Your task to perform on an android device: Add "usb-a" to the cart on walmart, then select checkout. Image 0: 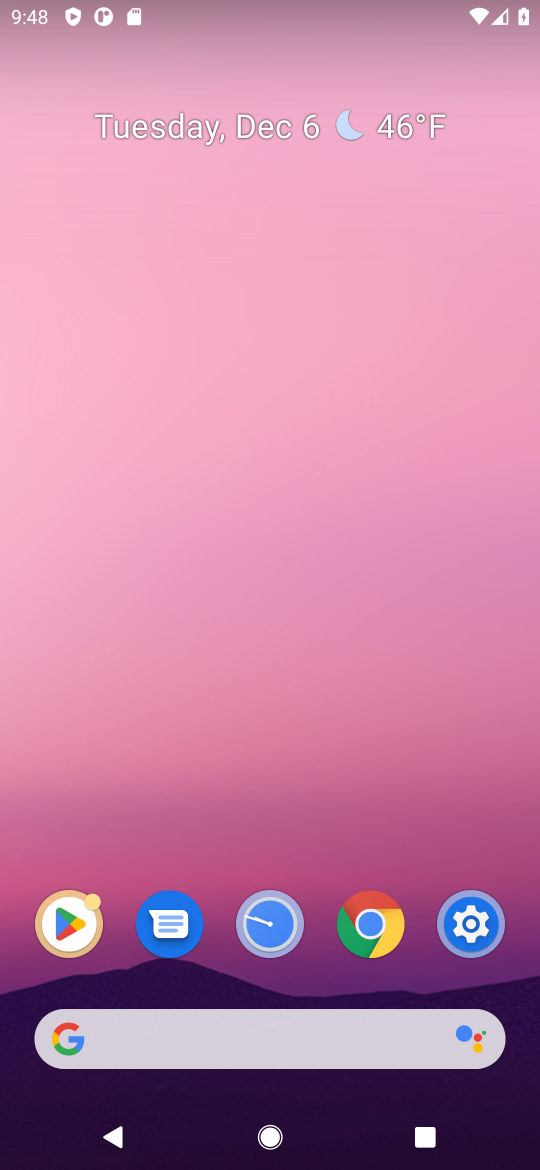
Step 0: click (199, 1028)
Your task to perform on an android device: Add "usb-a" to the cart on walmart, then select checkout. Image 1: 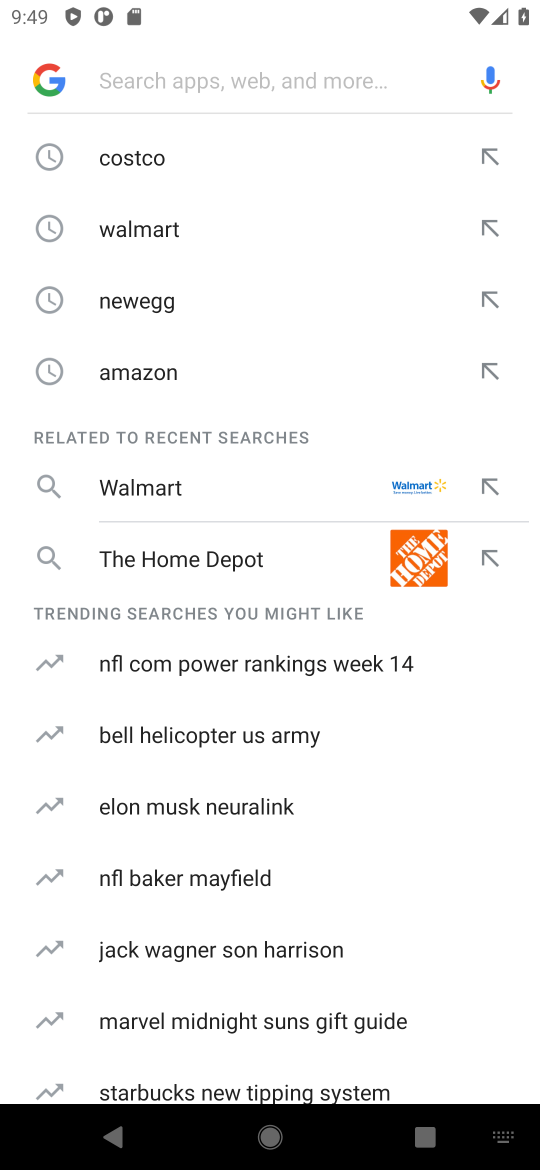
Step 1: click (237, 229)
Your task to perform on an android device: Add "usb-a" to the cart on walmart, then select checkout. Image 2: 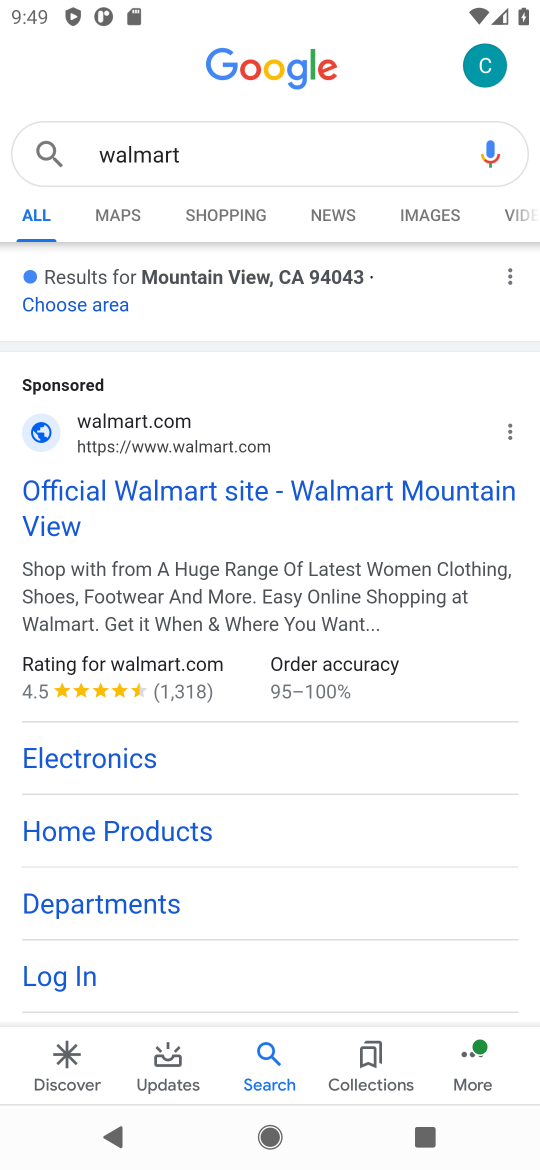
Step 2: click (81, 498)
Your task to perform on an android device: Add "usb-a" to the cart on walmart, then select checkout. Image 3: 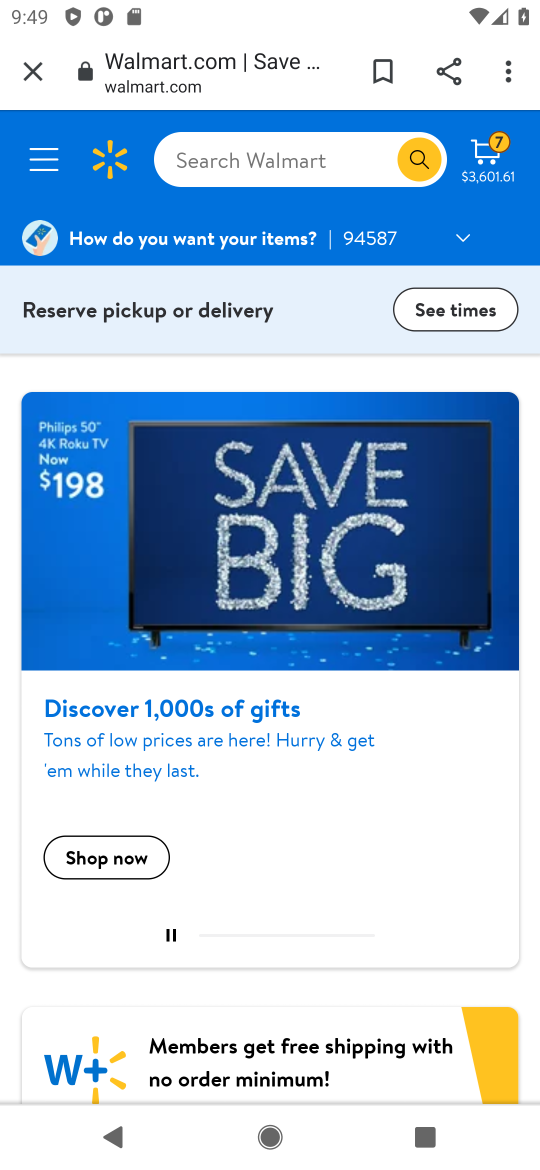
Step 3: click (305, 141)
Your task to perform on an android device: Add "usb-a" to the cart on walmart, then select checkout. Image 4: 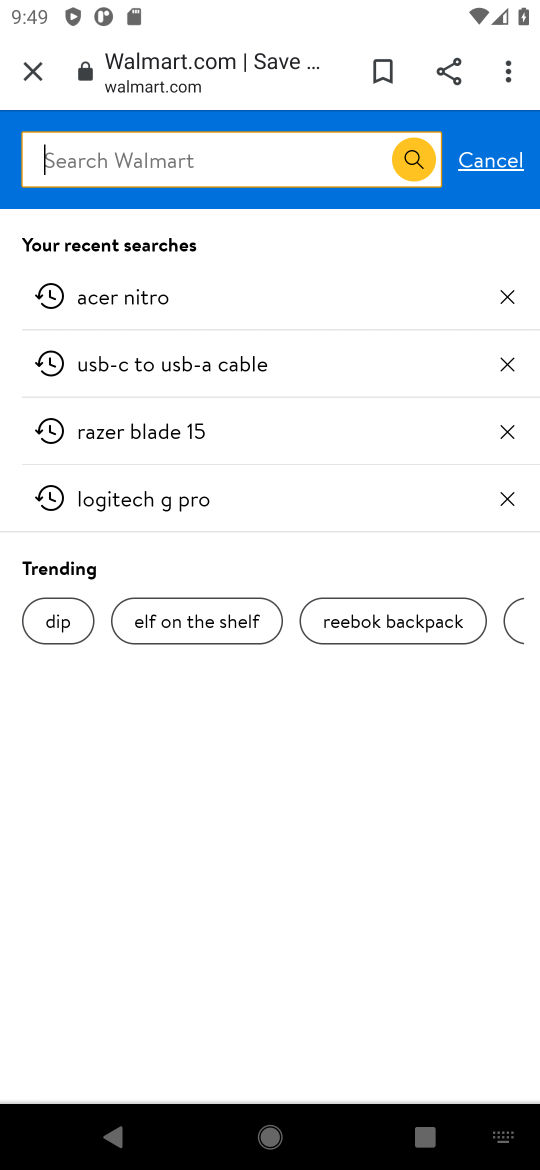
Step 4: type "usb-a"
Your task to perform on an android device: Add "usb-a" to the cart on walmart, then select checkout. Image 5: 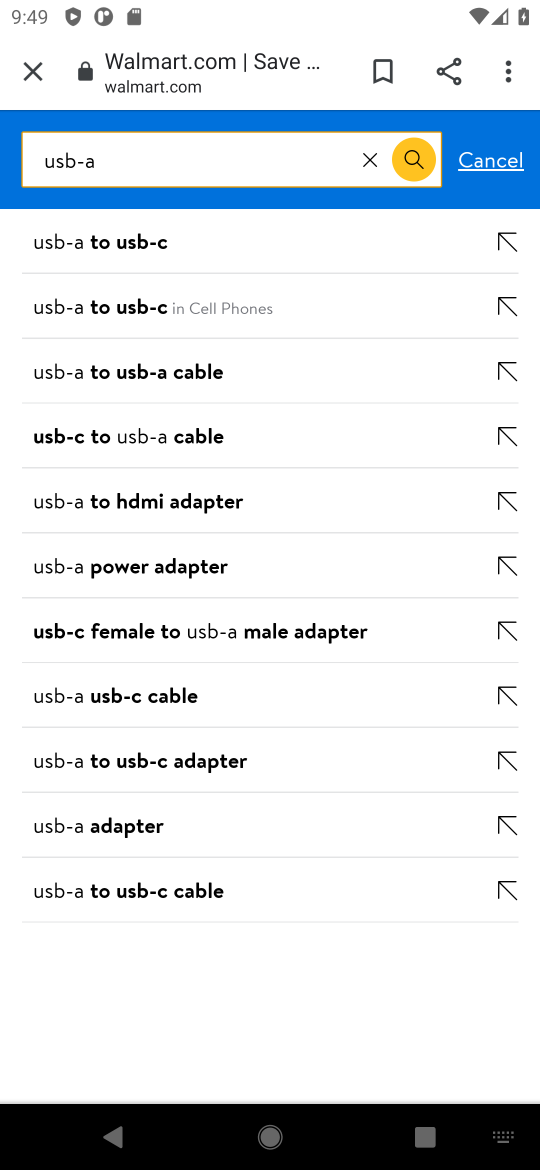
Step 5: click (413, 163)
Your task to perform on an android device: Add "usb-a" to the cart on walmart, then select checkout. Image 6: 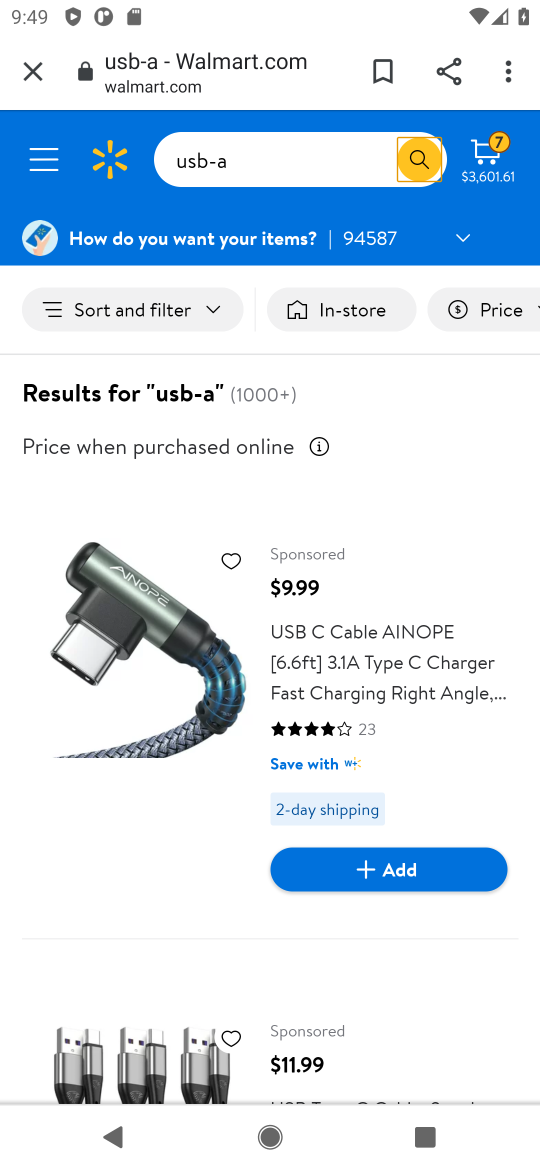
Step 6: click (365, 879)
Your task to perform on an android device: Add "usb-a" to the cart on walmart, then select checkout. Image 7: 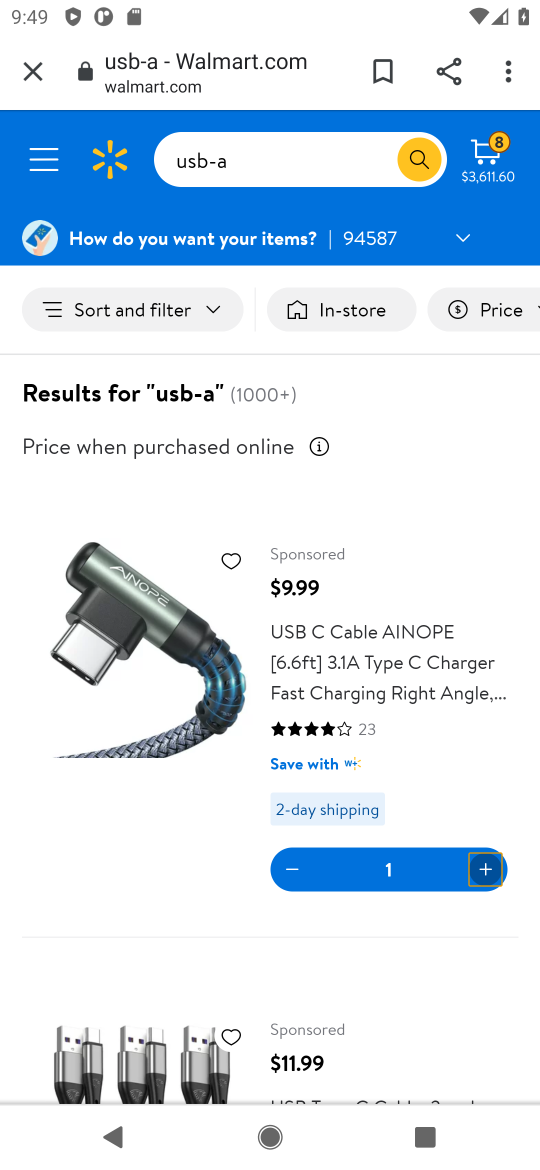
Step 7: task complete